Your task to perform on an android device: turn on sleep mode Image 0: 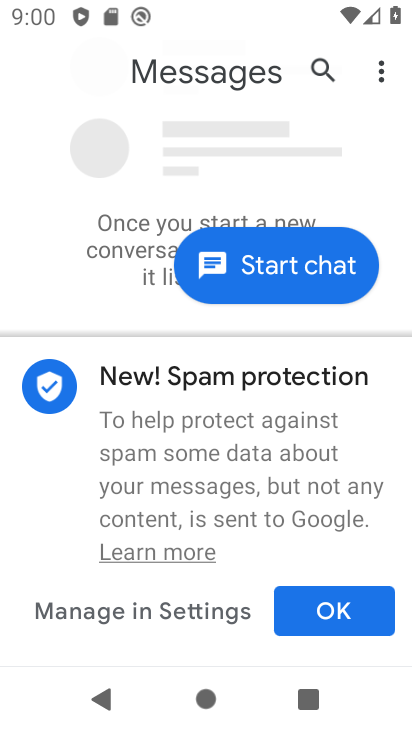
Step 0: press home button
Your task to perform on an android device: turn on sleep mode Image 1: 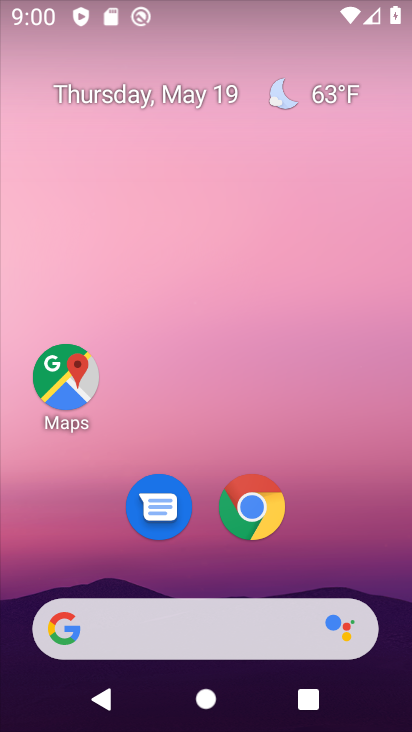
Step 1: drag from (375, 578) to (315, 134)
Your task to perform on an android device: turn on sleep mode Image 2: 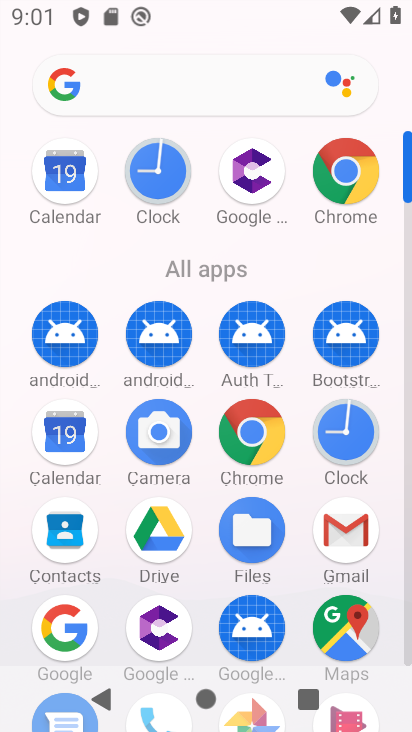
Step 2: click (404, 651)
Your task to perform on an android device: turn on sleep mode Image 3: 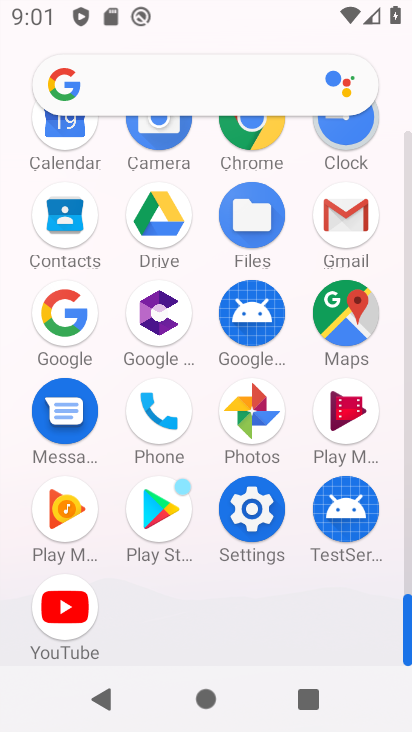
Step 3: click (269, 536)
Your task to perform on an android device: turn on sleep mode Image 4: 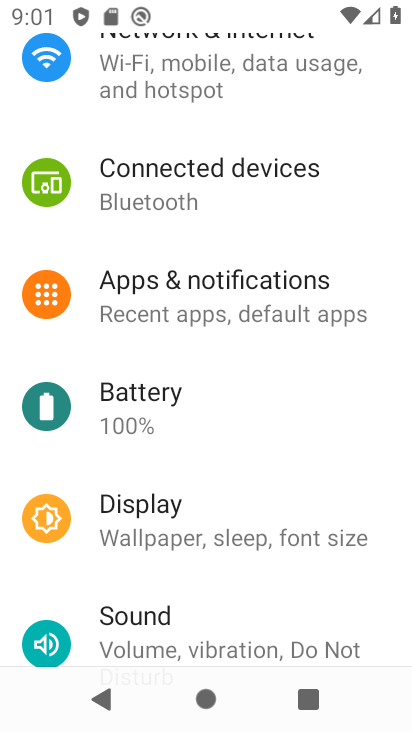
Step 4: click (224, 535)
Your task to perform on an android device: turn on sleep mode Image 5: 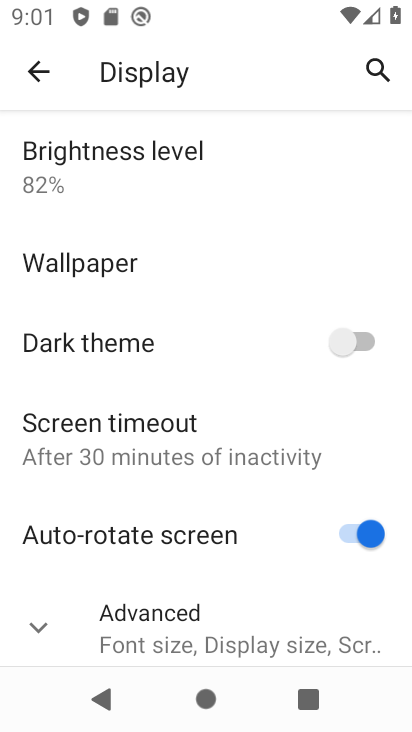
Step 5: task complete